Your task to perform on an android device: What is the news today? Image 0: 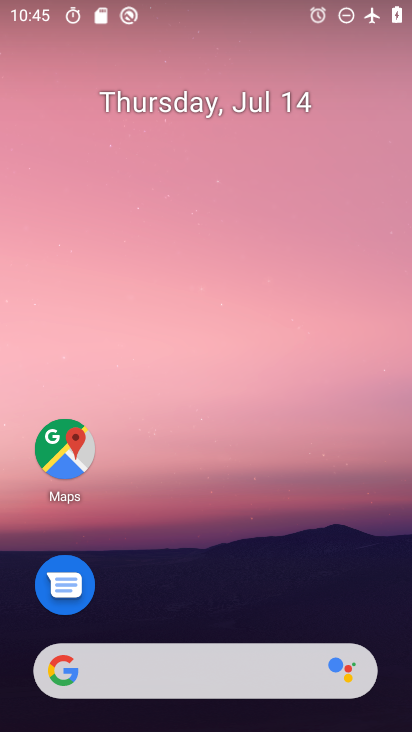
Step 0: click (196, 678)
Your task to perform on an android device: What is the news today? Image 1: 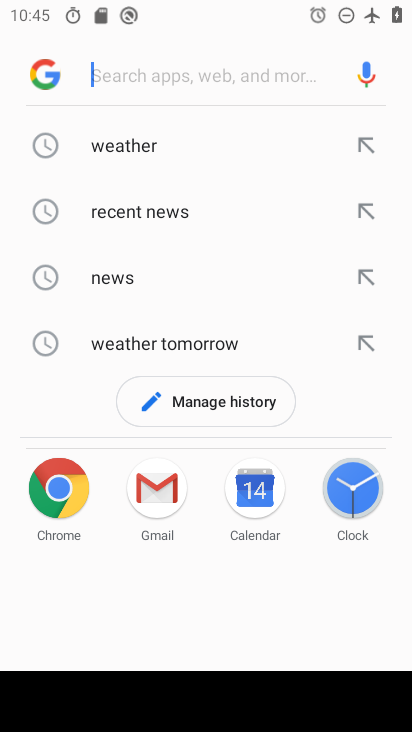
Step 1: click (106, 273)
Your task to perform on an android device: What is the news today? Image 2: 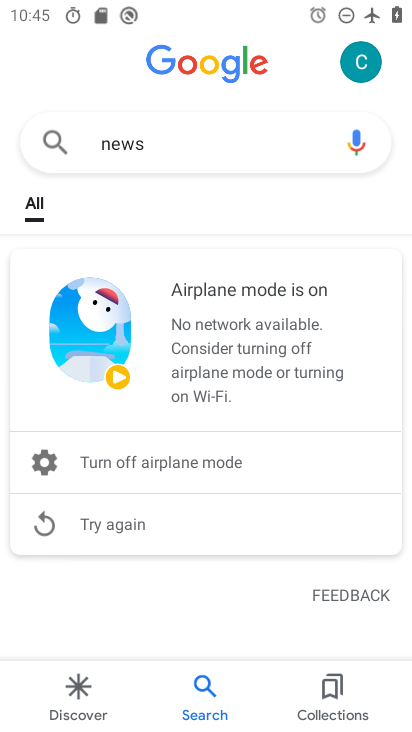
Step 2: task complete